Your task to perform on an android device: uninstall "Viber Messenger" Image 0: 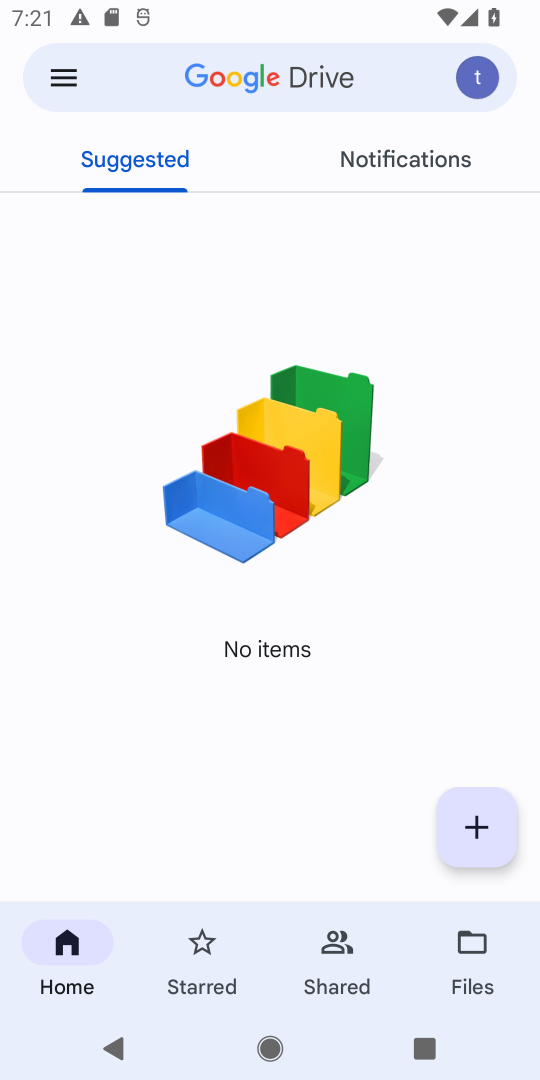
Step 0: press back button
Your task to perform on an android device: uninstall "Viber Messenger" Image 1: 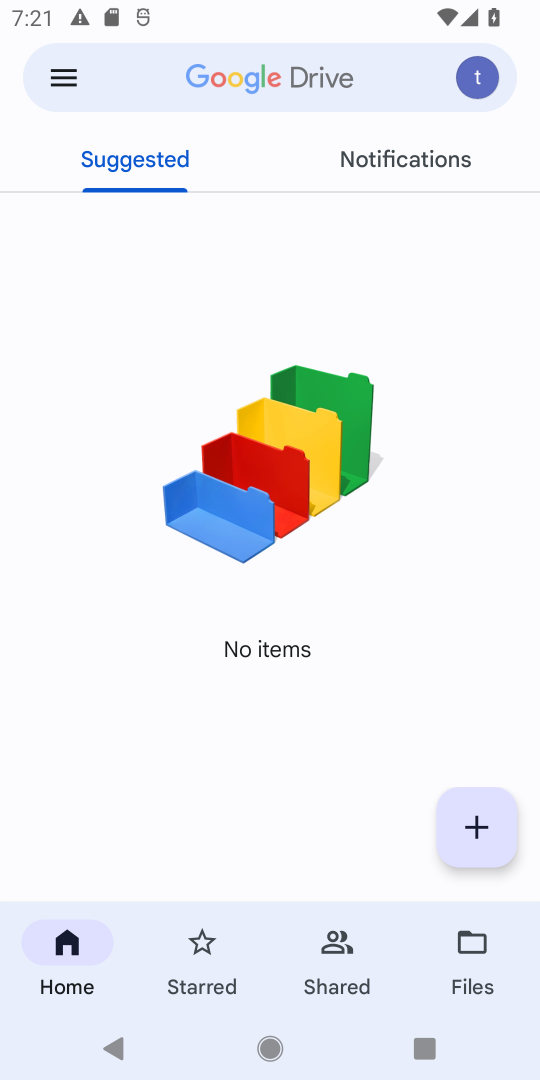
Step 1: press back button
Your task to perform on an android device: uninstall "Viber Messenger" Image 2: 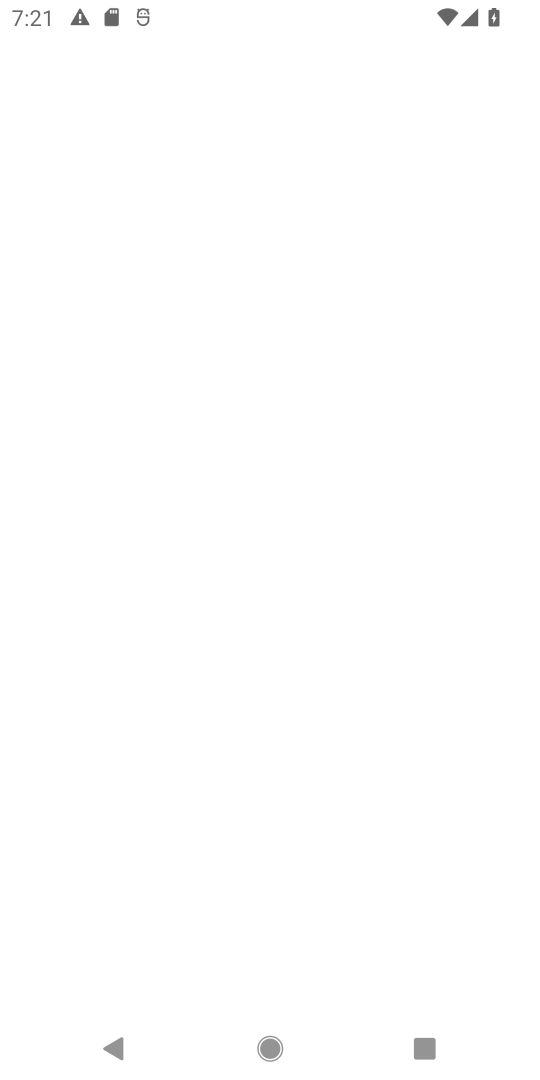
Step 2: press home button
Your task to perform on an android device: uninstall "Viber Messenger" Image 3: 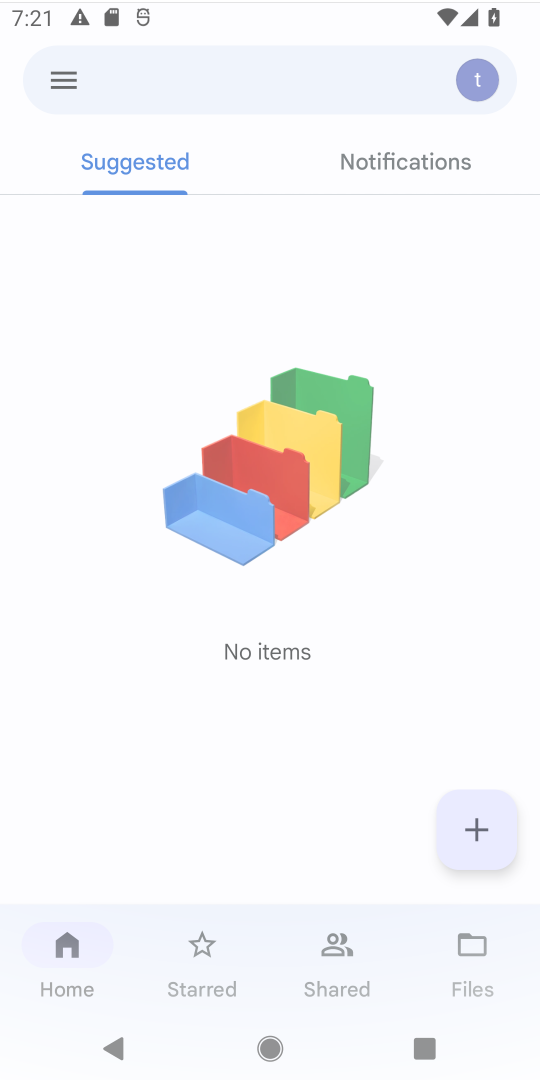
Step 3: press back button
Your task to perform on an android device: uninstall "Viber Messenger" Image 4: 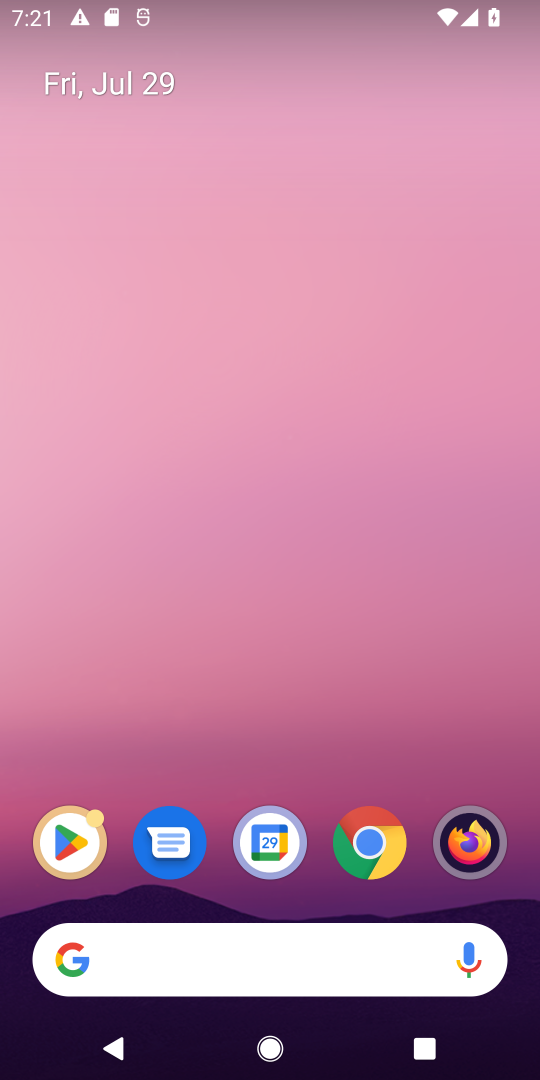
Step 4: drag from (360, 776) to (306, 137)
Your task to perform on an android device: uninstall "Viber Messenger" Image 5: 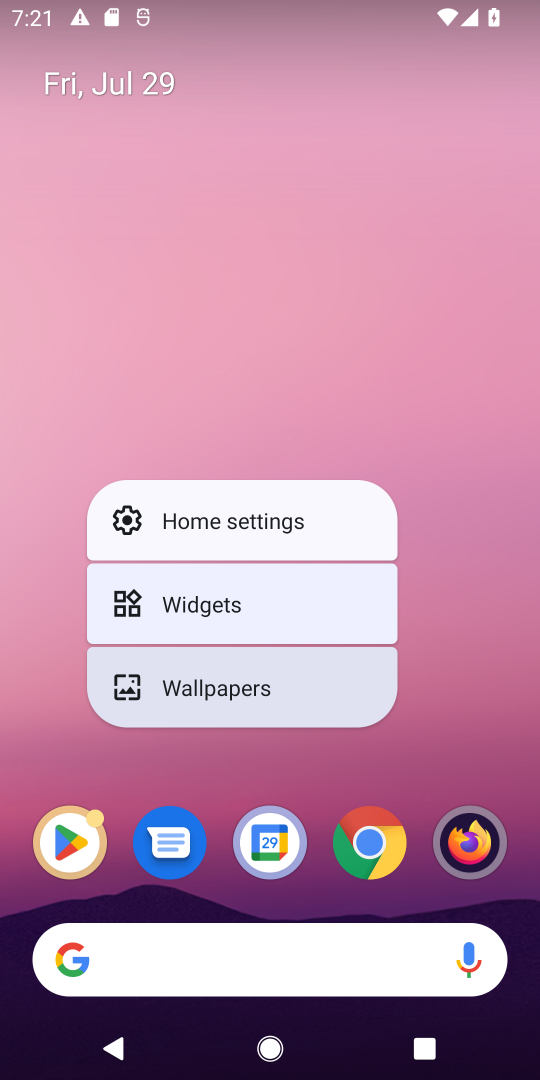
Step 5: press back button
Your task to perform on an android device: uninstall "Viber Messenger" Image 6: 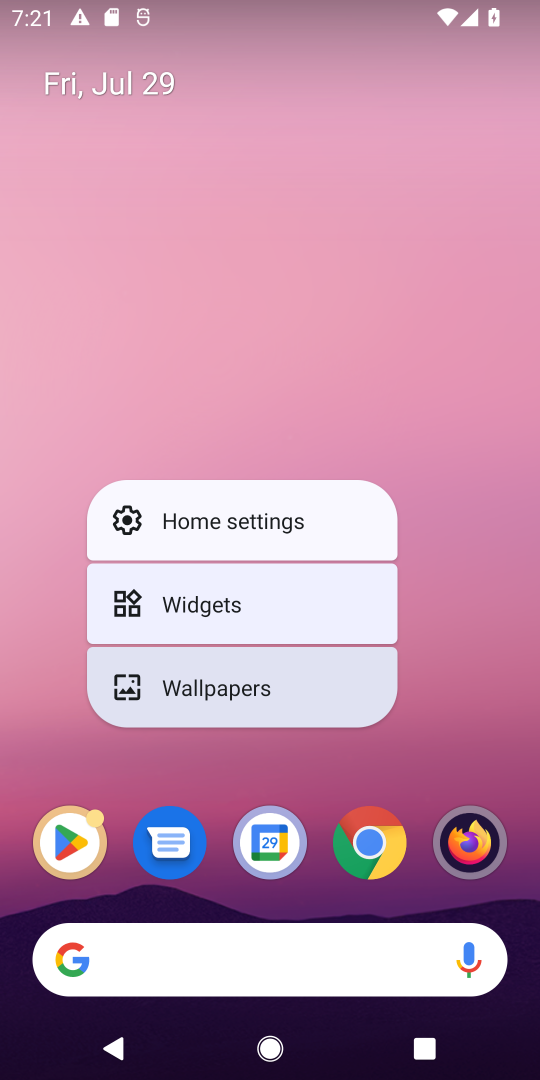
Step 6: press back button
Your task to perform on an android device: uninstall "Viber Messenger" Image 7: 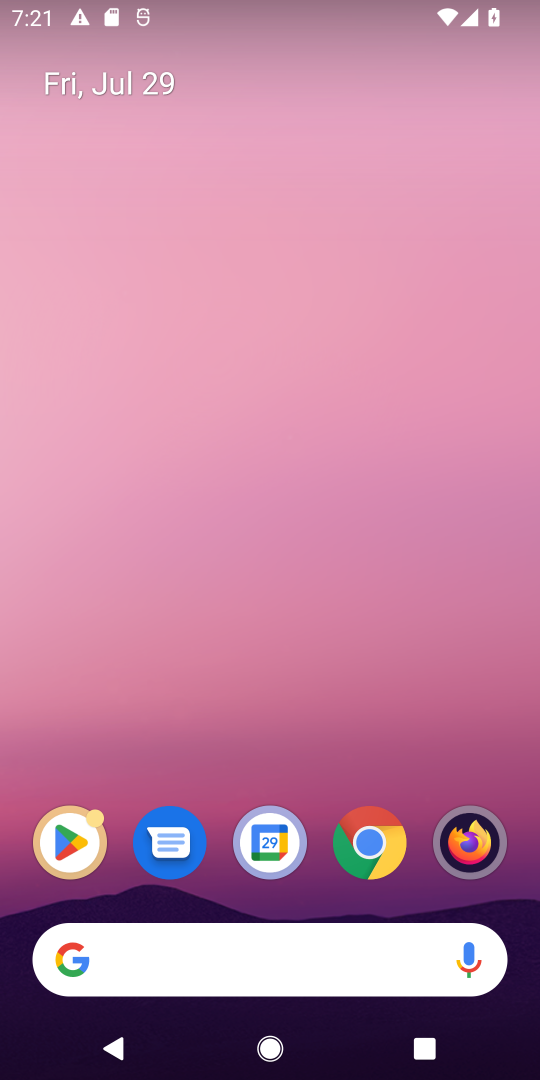
Step 7: press back button
Your task to perform on an android device: uninstall "Viber Messenger" Image 8: 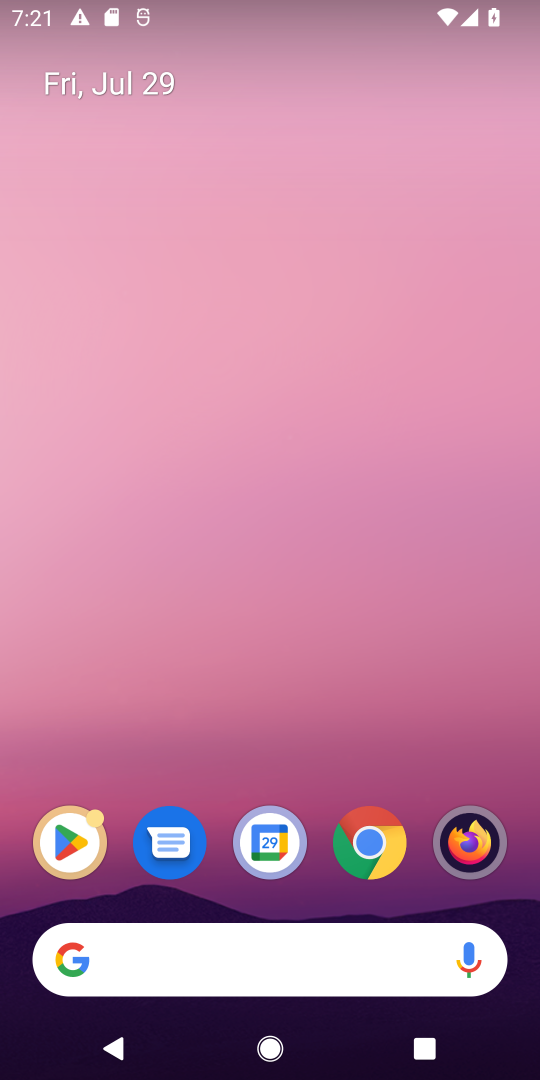
Step 8: drag from (240, 718) to (291, 90)
Your task to perform on an android device: uninstall "Viber Messenger" Image 9: 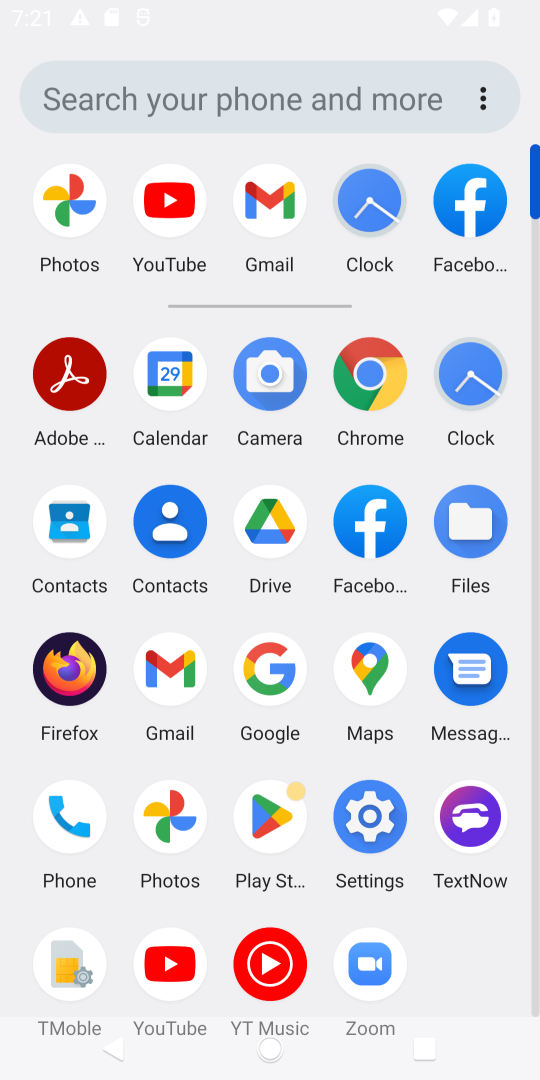
Step 9: drag from (364, 706) to (290, 224)
Your task to perform on an android device: uninstall "Viber Messenger" Image 10: 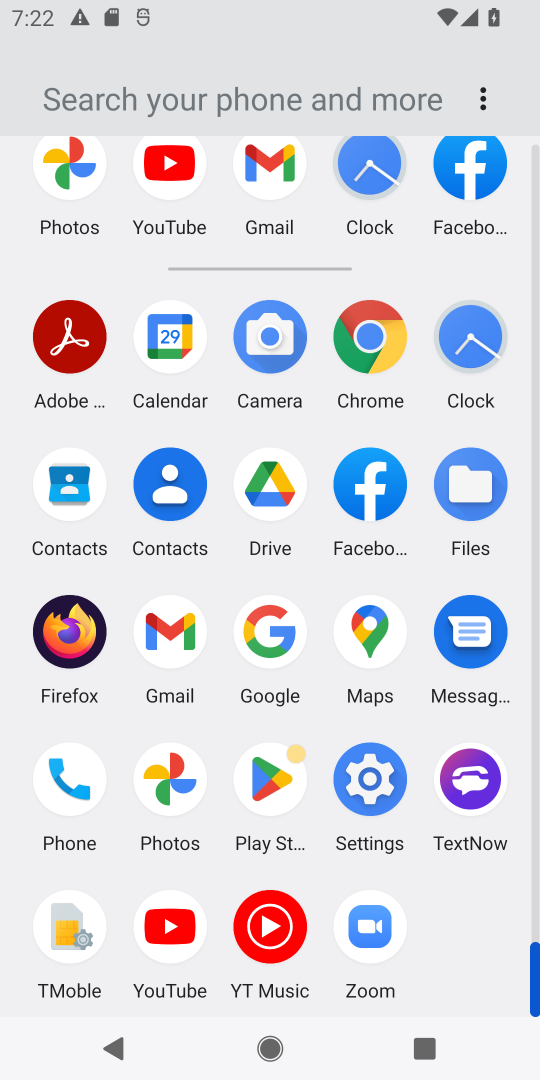
Step 10: click (270, 785)
Your task to perform on an android device: uninstall "Viber Messenger" Image 11: 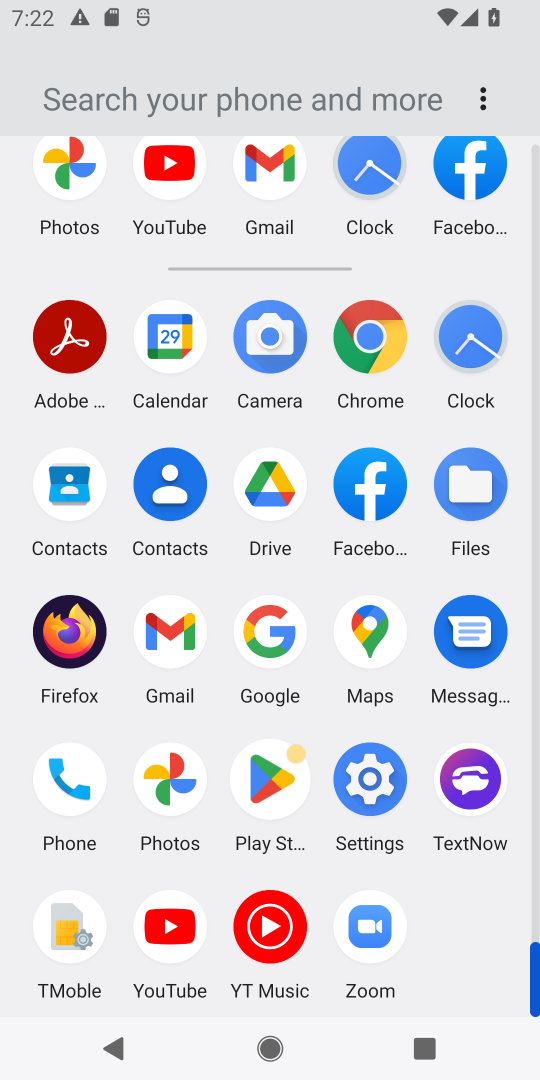
Step 11: click (269, 787)
Your task to perform on an android device: uninstall "Viber Messenger" Image 12: 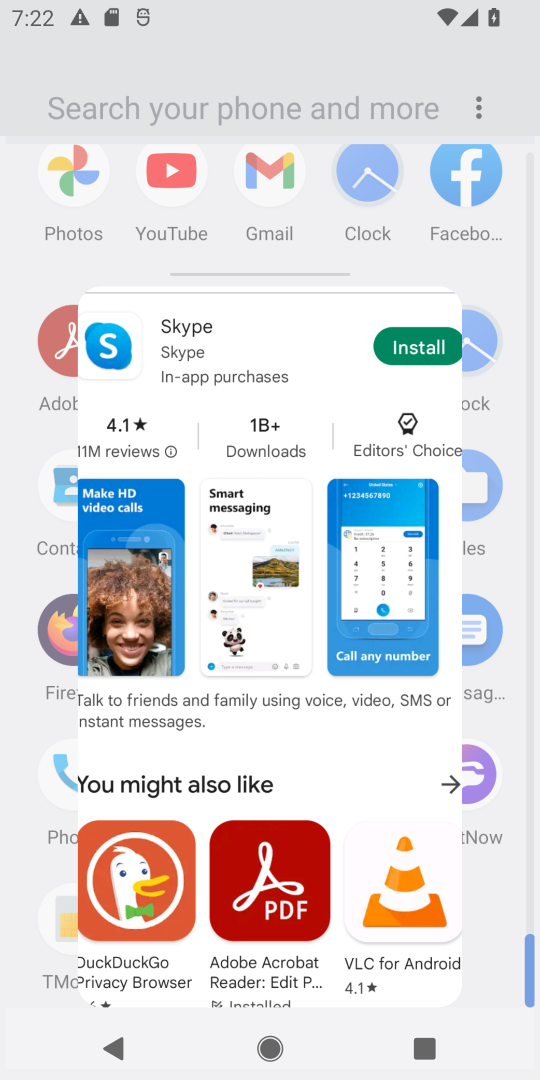
Step 12: click (270, 789)
Your task to perform on an android device: uninstall "Viber Messenger" Image 13: 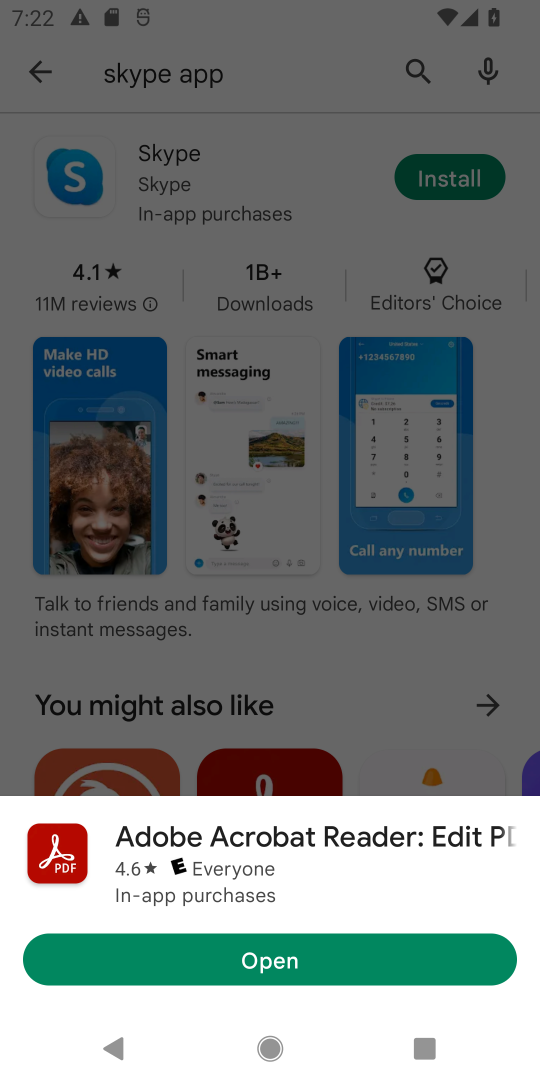
Step 13: click (22, 53)
Your task to perform on an android device: uninstall "Viber Messenger" Image 14: 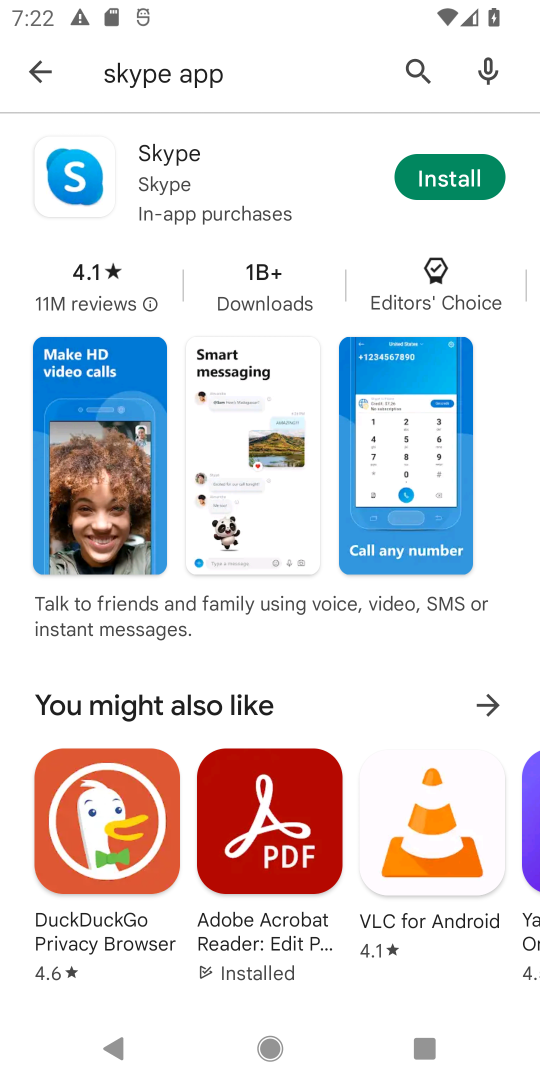
Step 14: click (34, 62)
Your task to perform on an android device: uninstall "Viber Messenger" Image 15: 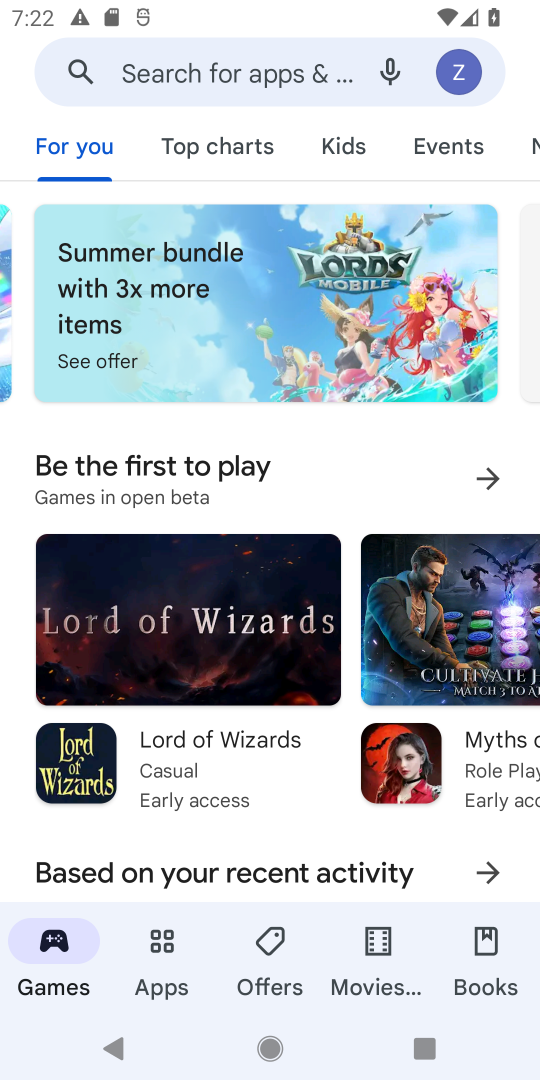
Step 15: click (126, 69)
Your task to perform on an android device: uninstall "Viber Messenger" Image 16: 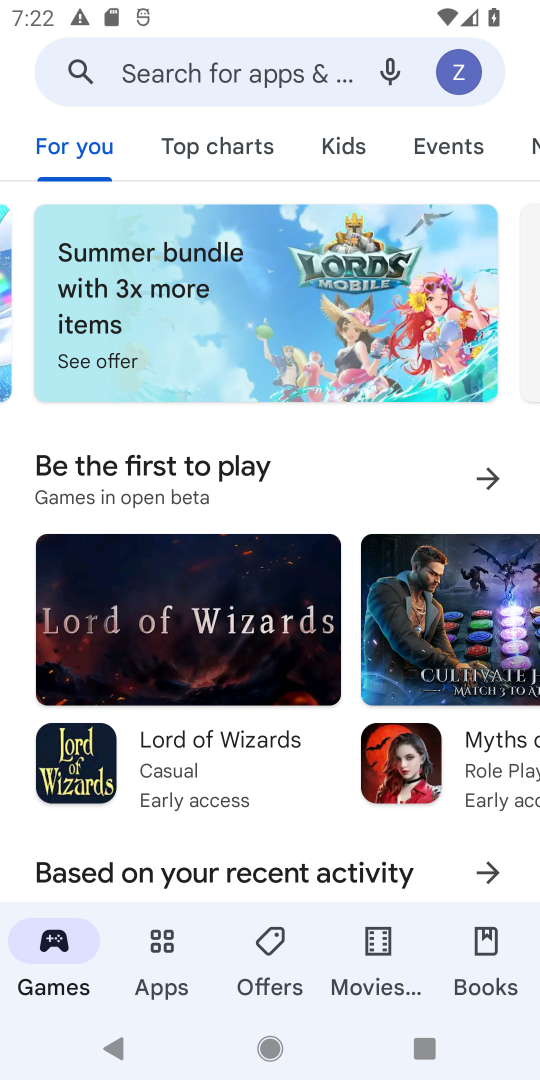
Step 16: click (131, 72)
Your task to perform on an android device: uninstall "Viber Messenger" Image 17: 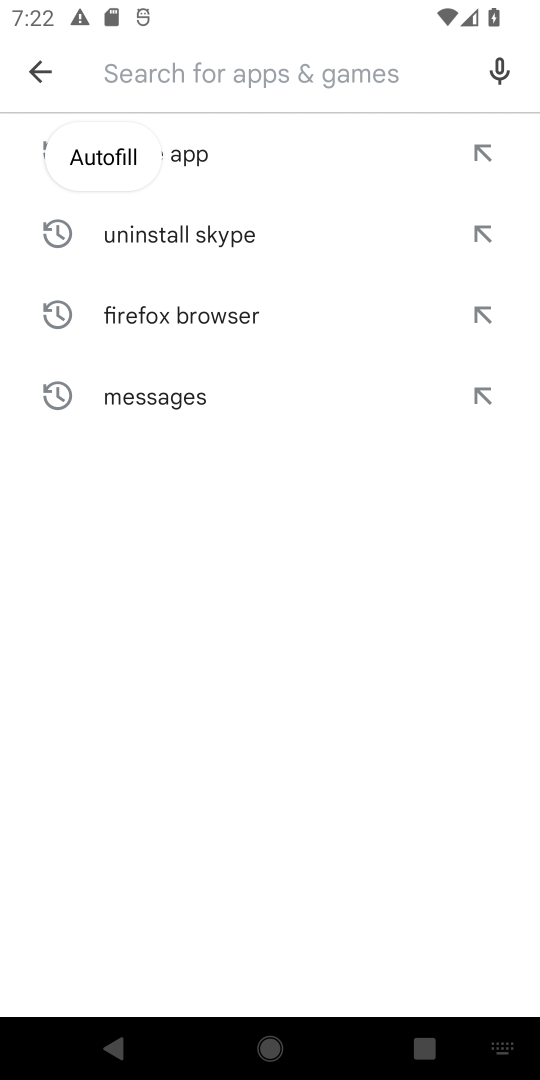
Step 17: type "Viber Messenger"
Your task to perform on an android device: uninstall "Viber Messenger" Image 18: 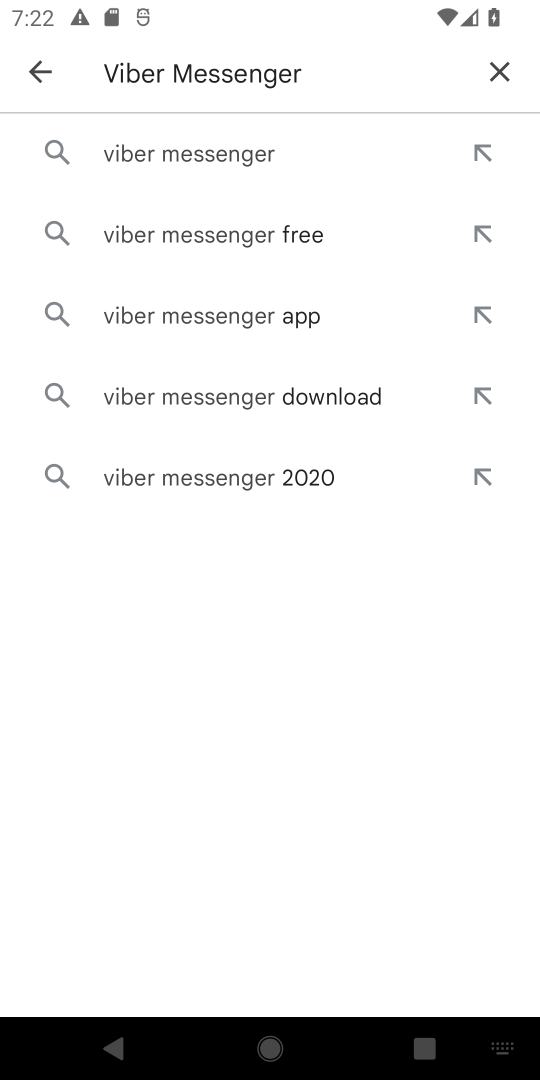
Step 18: click (206, 159)
Your task to perform on an android device: uninstall "Viber Messenger" Image 19: 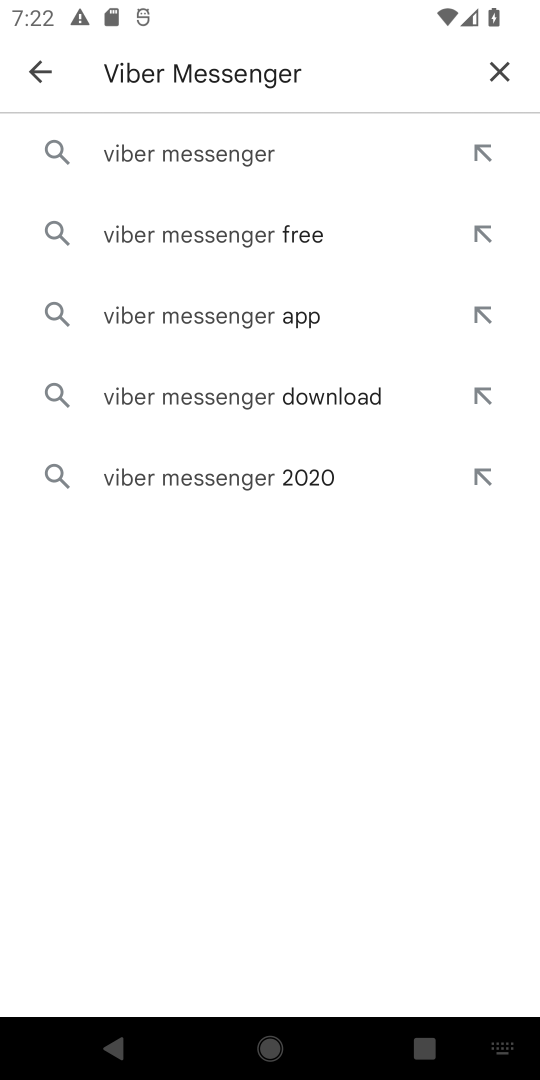
Step 19: click (214, 166)
Your task to perform on an android device: uninstall "Viber Messenger" Image 20: 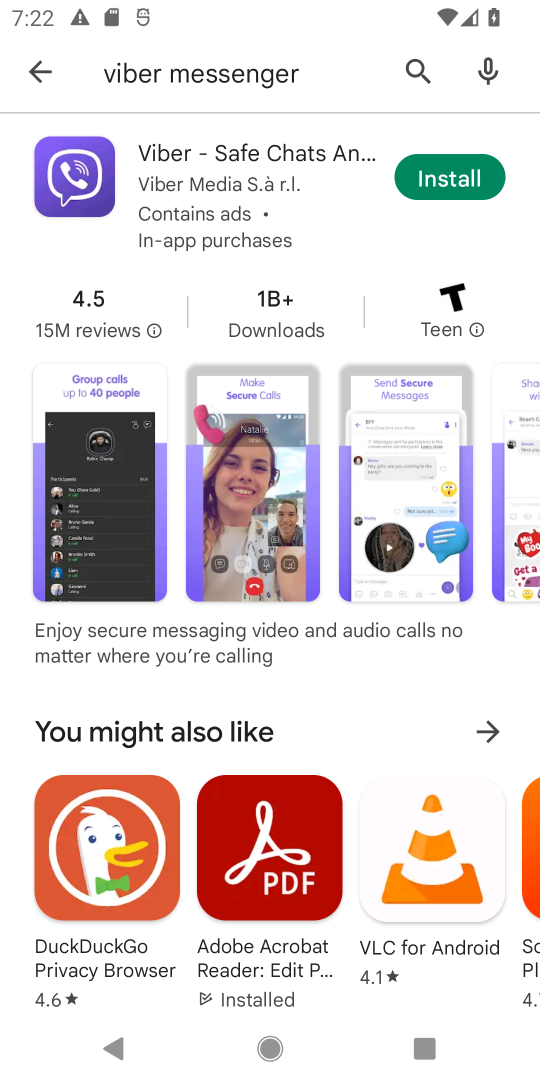
Step 20: task complete